Your task to perform on an android device: toggle show notifications on the lock screen Image 0: 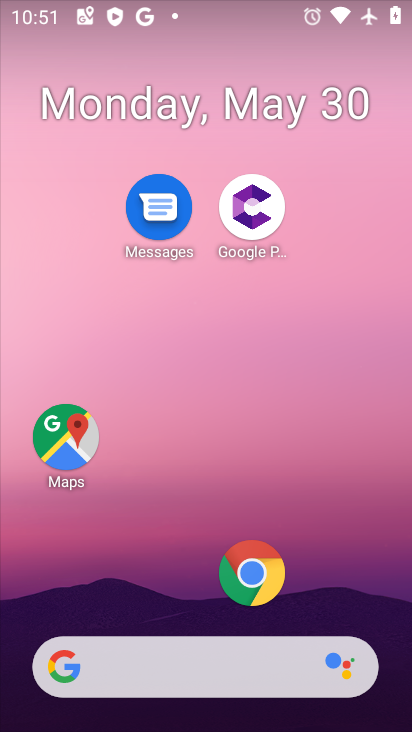
Step 0: drag from (148, 634) to (139, 104)
Your task to perform on an android device: toggle show notifications on the lock screen Image 1: 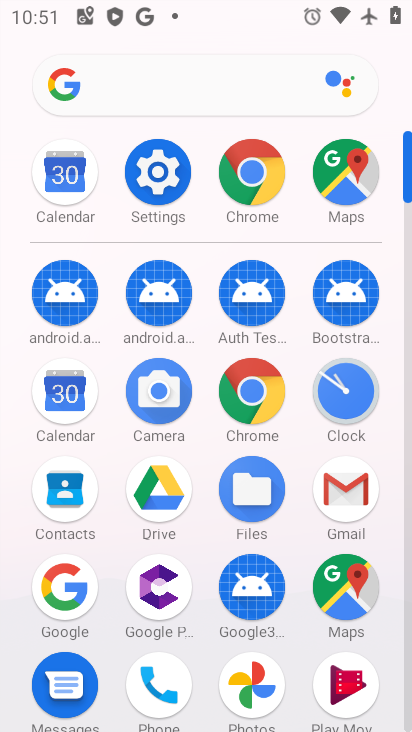
Step 1: click (156, 159)
Your task to perform on an android device: toggle show notifications on the lock screen Image 2: 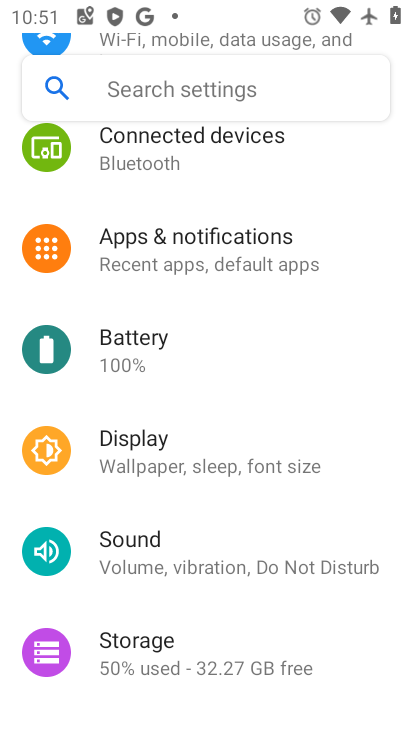
Step 2: click (171, 267)
Your task to perform on an android device: toggle show notifications on the lock screen Image 3: 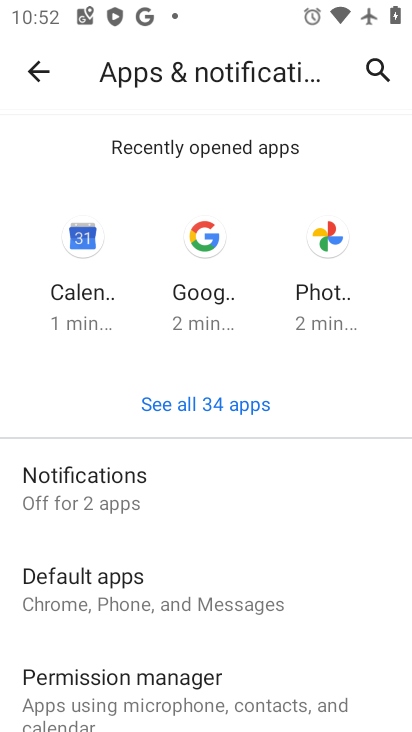
Step 3: click (159, 499)
Your task to perform on an android device: toggle show notifications on the lock screen Image 4: 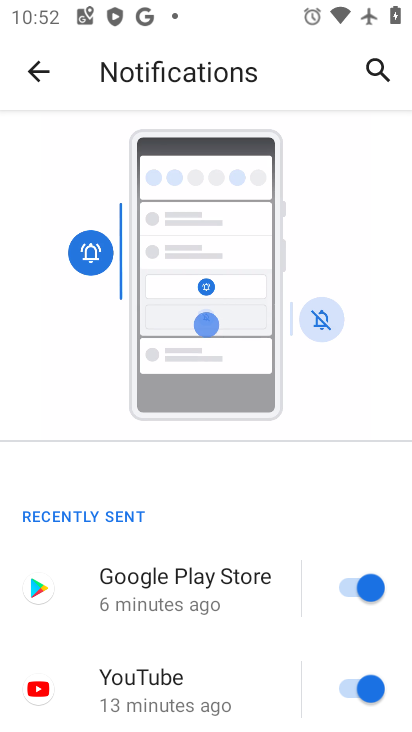
Step 4: click (355, 593)
Your task to perform on an android device: toggle show notifications on the lock screen Image 5: 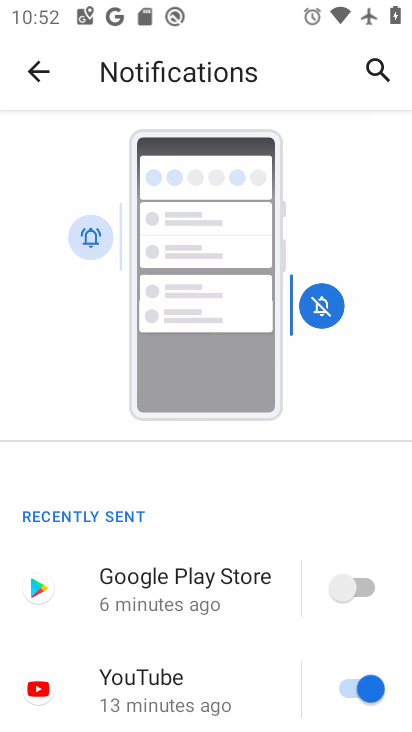
Step 5: task complete